Your task to perform on an android device: empty trash in google photos Image 0: 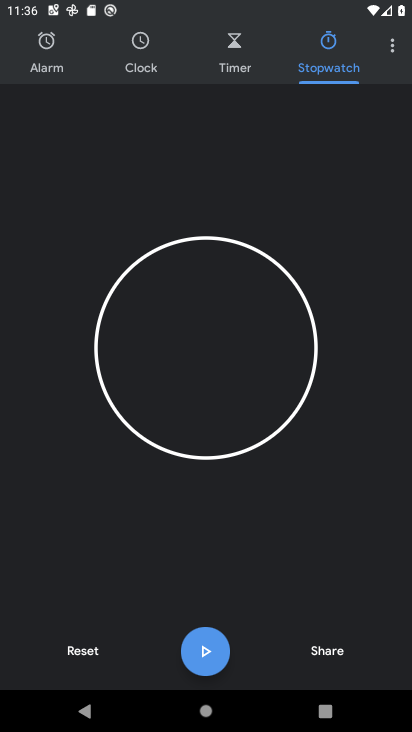
Step 0: press back button
Your task to perform on an android device: empty trash in google photos Image 1: 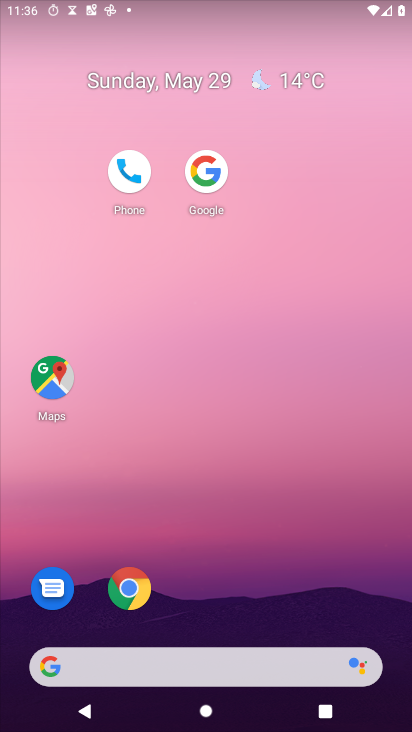
Step 1: drag from (187, 582) to (159, 221)
Your task to perform on an android device: empty trash in google photos Image 2: 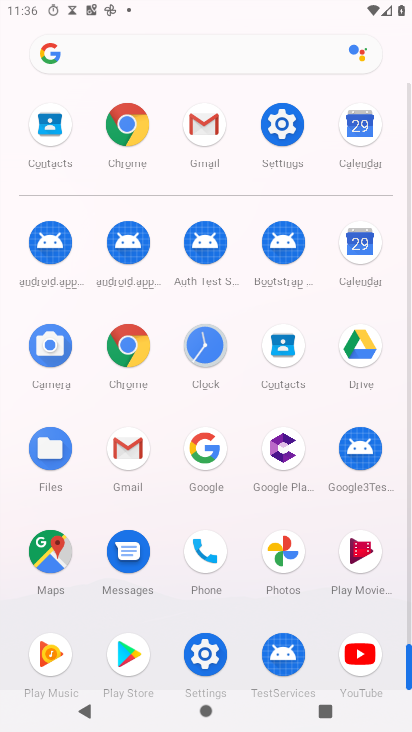
Step 2: click (293, 553)
Your task to perform on an android device: empty trash in google photos Image 3: 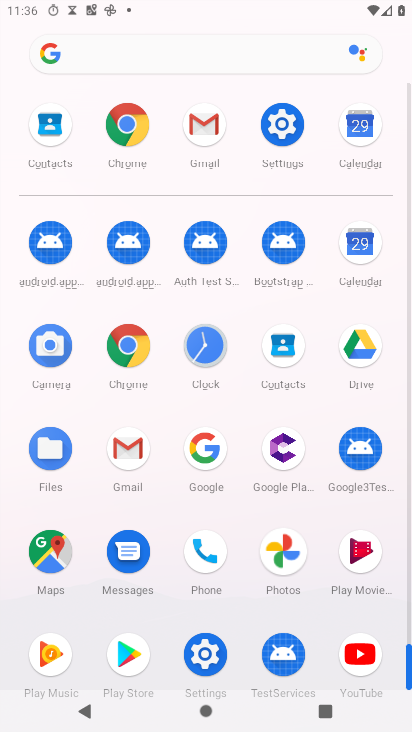
Step 3: click (293, 554)
Your task to perform on an android device: empty trash in google photos Image 4: 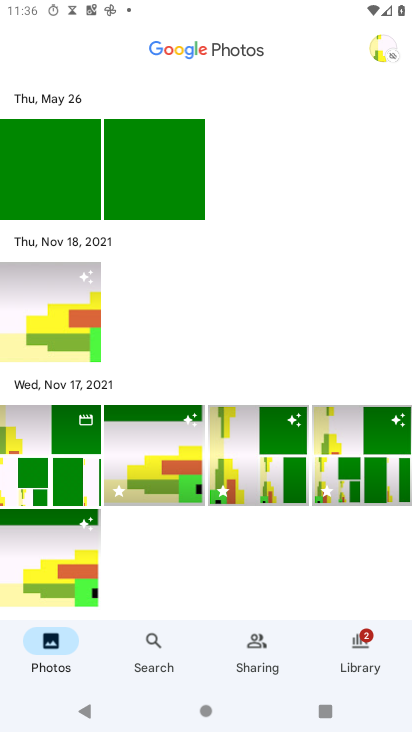
Step 4: press back button
Your task to perform on an android device: empty trash in google photos Image 5: 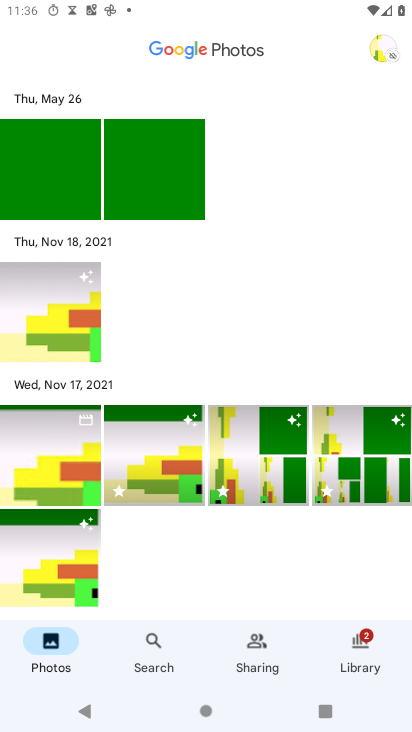
Step 5: press back button
Your task to perform on an android device: empty trash in google photos Image 6: 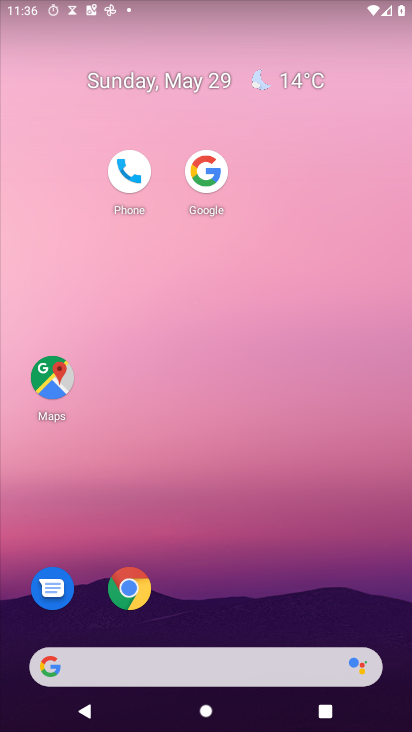
Step 6: drag from (284, 684) to (153, 134)
Your task to perform on an android device: empty trash in google photos Image 7: 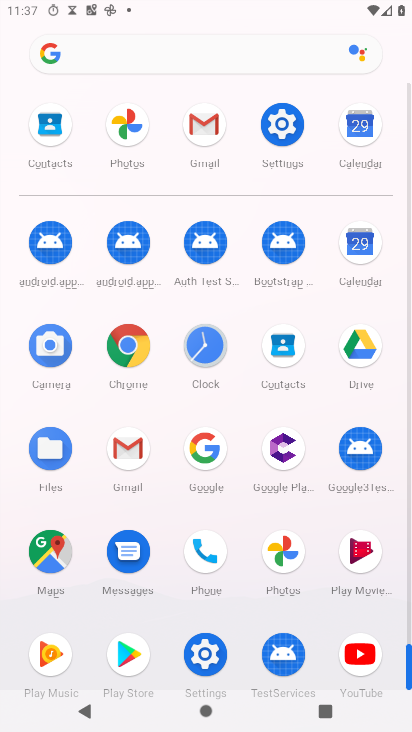
Step 7: click (285, 552)
Your task to perform on an android device: empty trash in google photos Image 8: 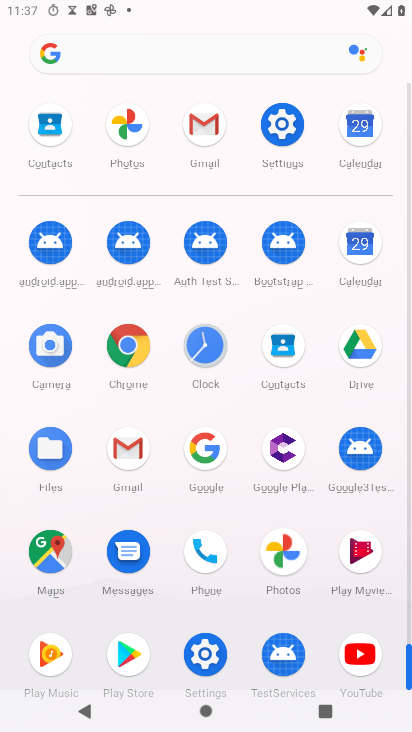
Step 8: click (286, 553)
Your task to perform on an android device: empty trash in google photos Image 9: 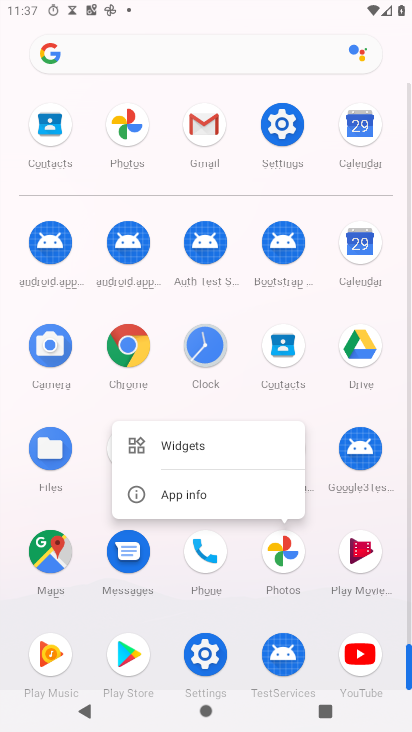
Step 9: click (286, 553)
Your task to perform on an android device: empty trash in google photos Image 10: 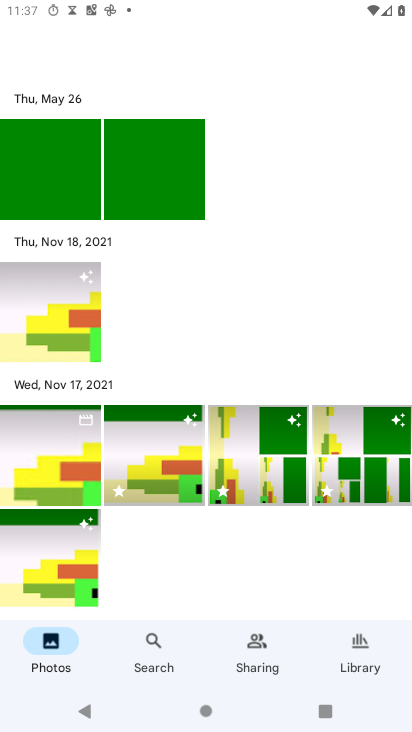
Step 10: click (286, 553)
Your task to perform on an android device: empty trash in google photos Image 11: 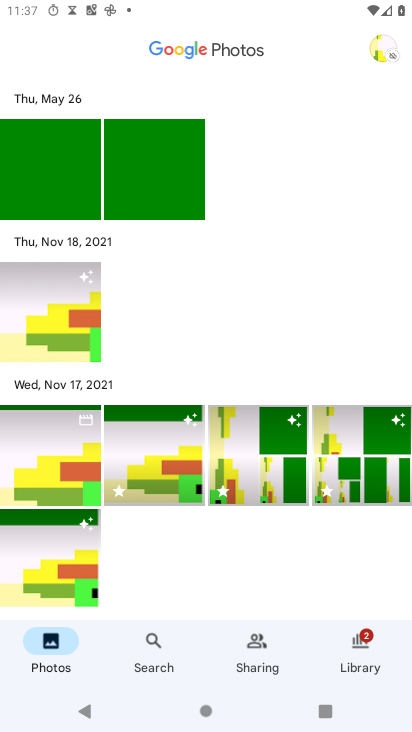
Step 11: press back button
Your task to perform on an android device: empty trash in google photos Image 12: 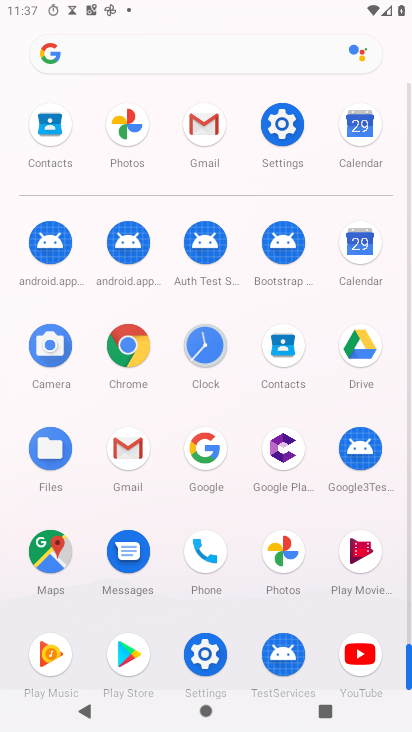
Step 12: click (288, 553)
Your task to perform on an android device: empty trash in google photos Image 13: 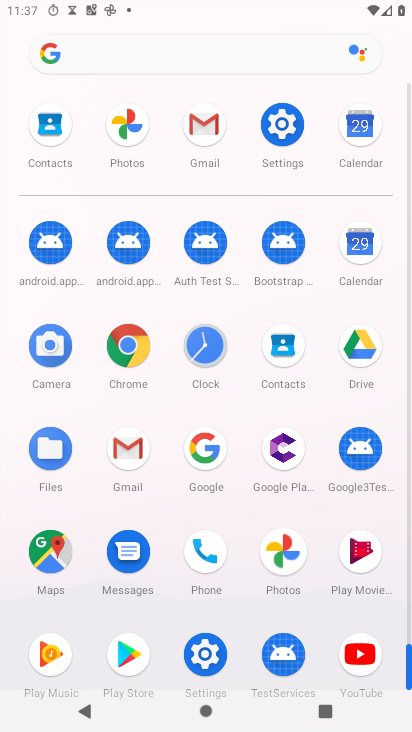
Step 13: click (288, 553)
Your task to perform on an android device: empty trash in google photos Image 14: 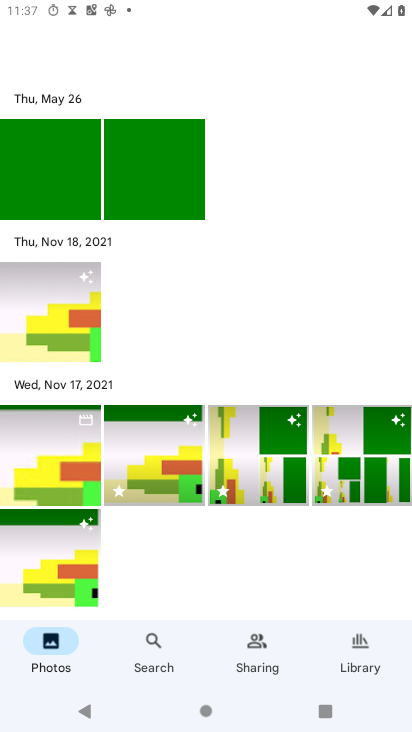
Step 14: click (287, 553)
Your task to perform on an android device: empty trash in google photos Image 15: 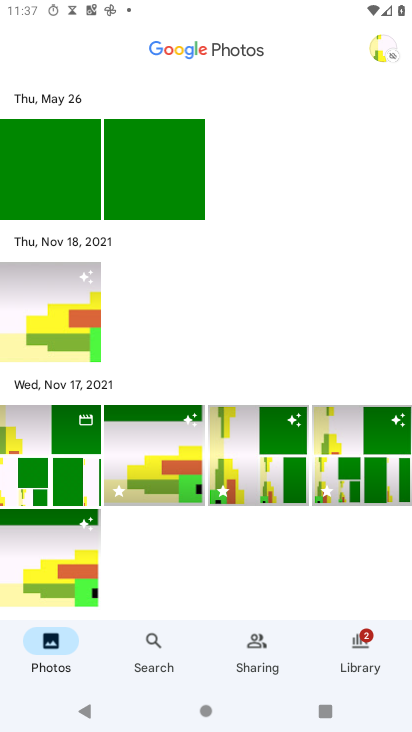
Step 15: press back button
Your task to perform on an android device: empty trash in google photos Image 16: 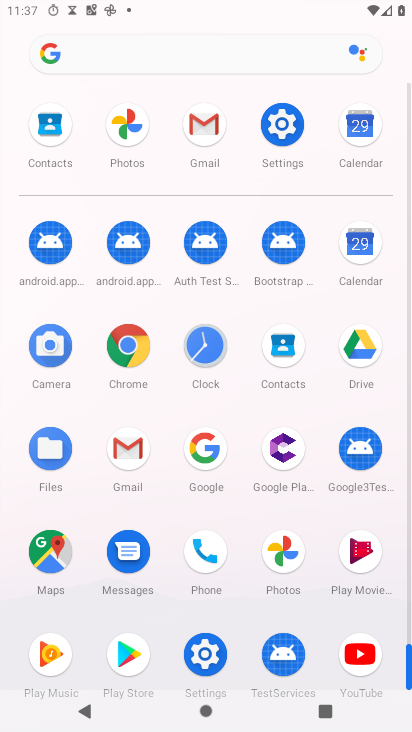
Step 16: click (292, 549)
Your task to perform on an android device: empty trash in google photos Image 17: 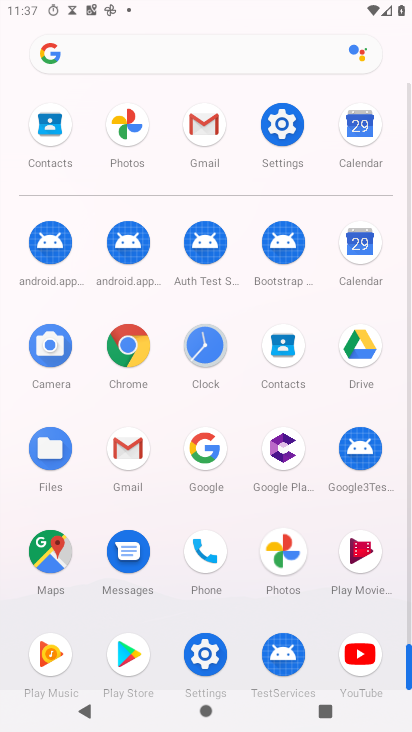
Step 17: click (290, 546)
Your task to perform on an android device: empty trash in google photos Image 18: 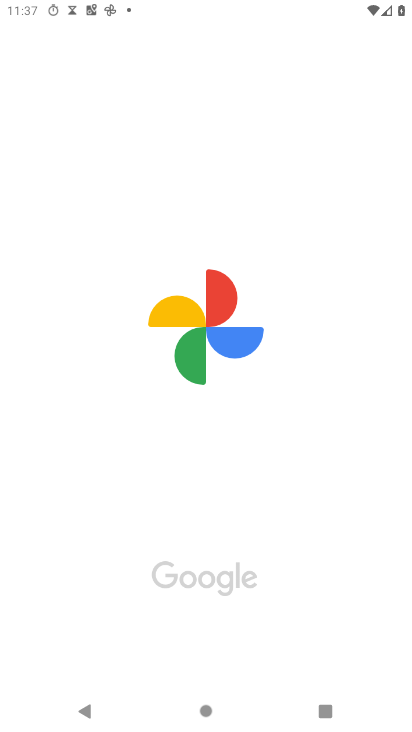
Step 18: click (290, 546)
Your task to perform on an android device: empty trash in google photos Image 19: 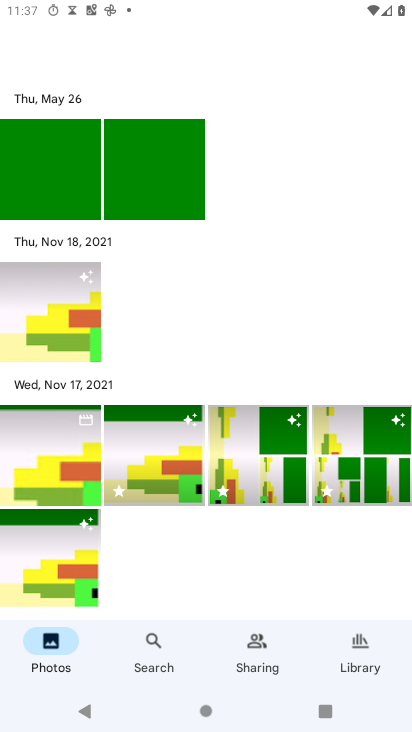
Step 19: click (289, 546)
Your task to perform on an android device: empty trash in google photos Image 20: 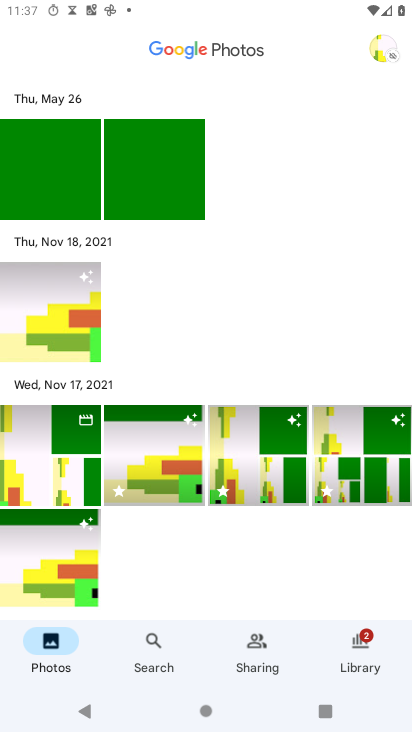
Step 20: task complete